Your task to perform on an android device: Open Maps and search for coffee Image 0: 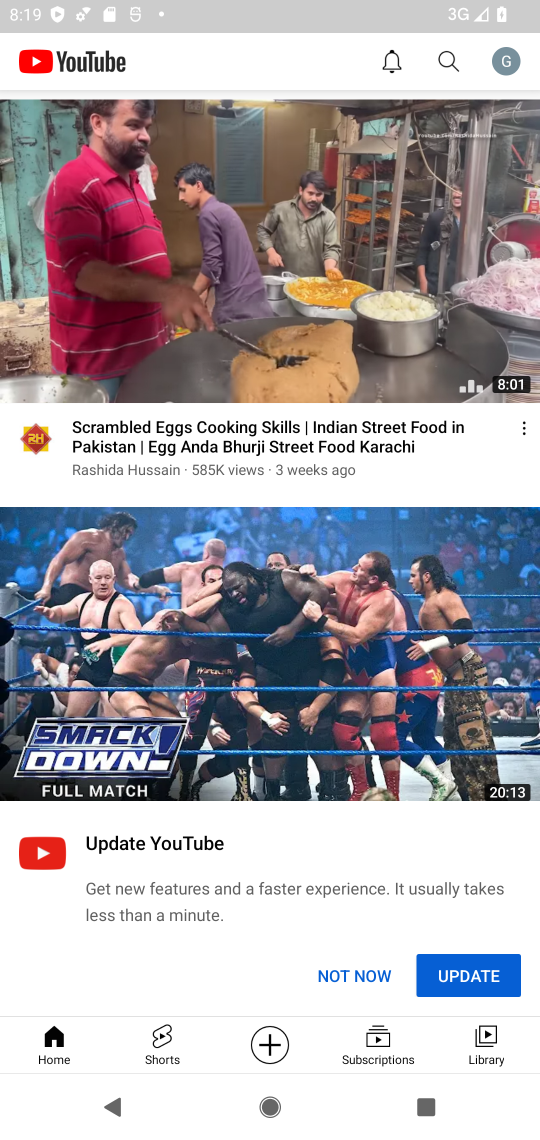
Step 0: press home button
Your task to perform on an android device: Open Maps and search for coffee Image 1: 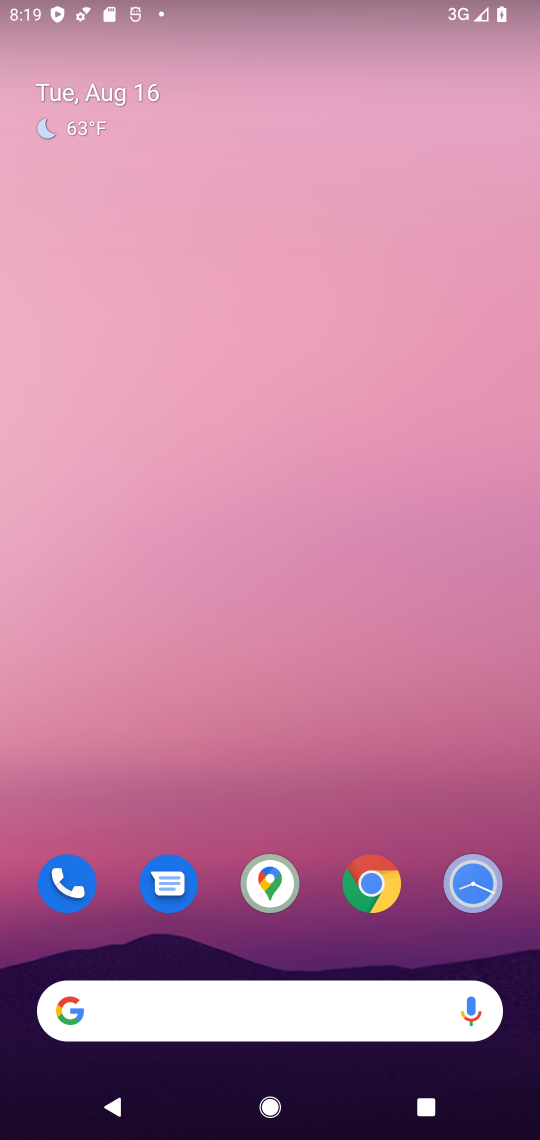
Step 1: click (267, 875)
Your task to perform on an android device: Open Maps and search for coffee Image 2: 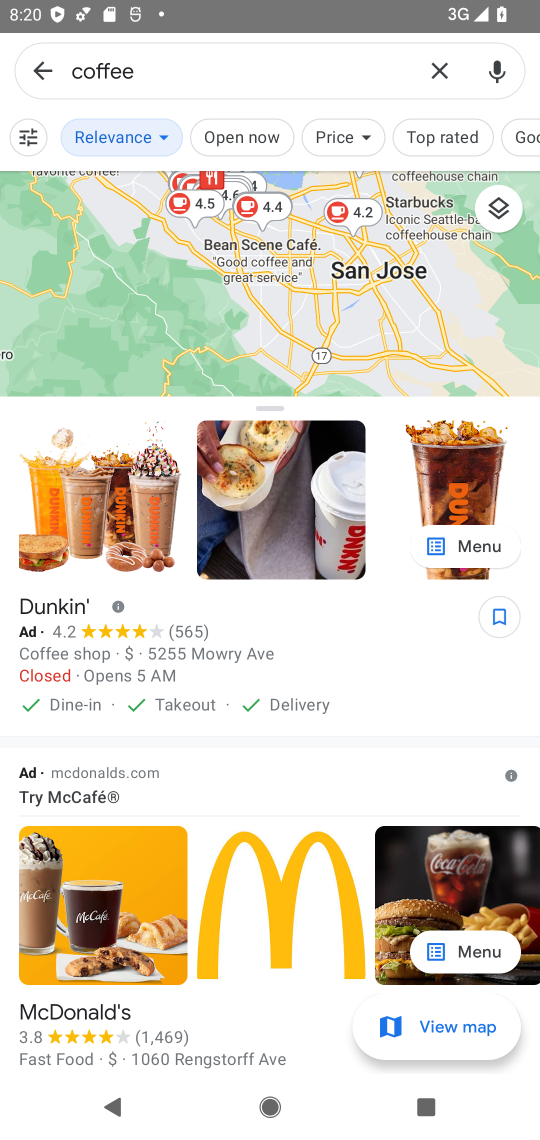
Step 2: task complete